Your task to perform on an android device: Open the Play Movies app and select the watchlist tab. Image 0: 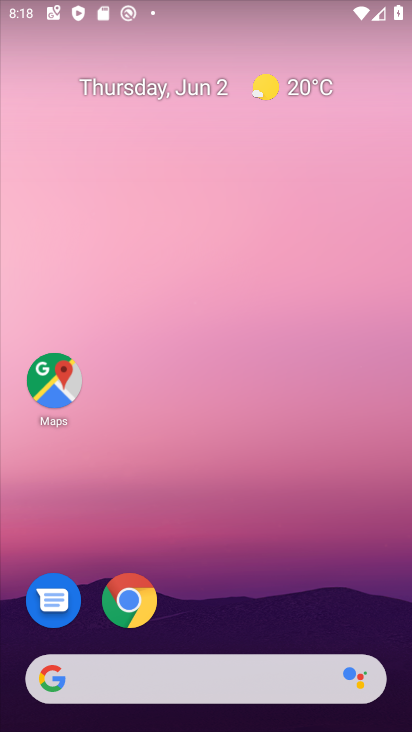
Step 0: drag from (355, 622) to (356, 196)
Your task to perform on an android device: Open the Play Movies app and select the watchlist tab. Image 1: 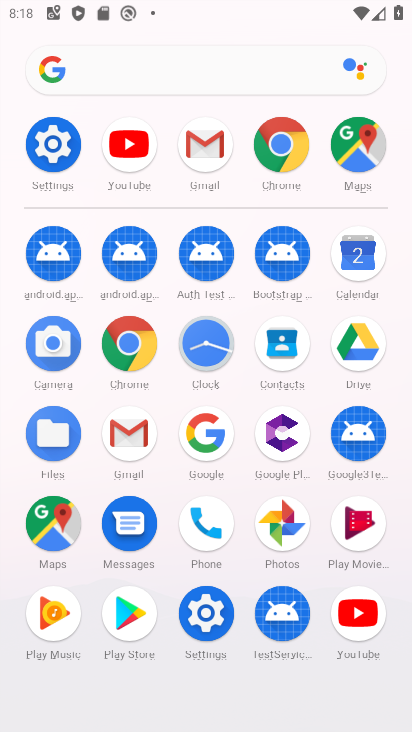
Step 1: click (353, 533)
Your task to perform on an android device: Open the Play Movies app and select the watchlist tab. Image 2: 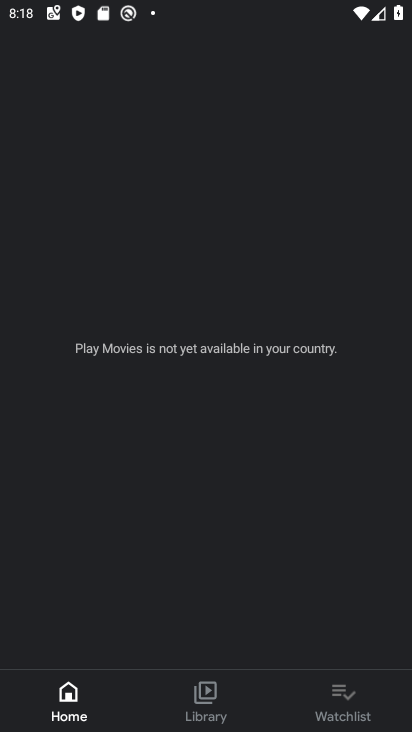
Step 2: click (346, 695)
Your task to perform on an android device: Open the Play Movies app and select the watchlist tab. Image 3: 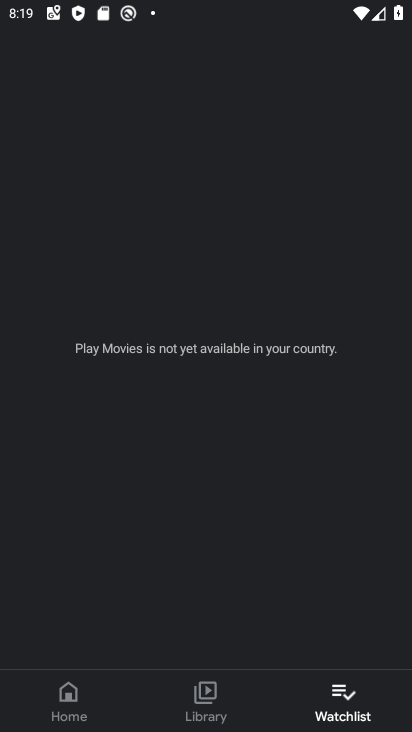
Step 3: task complete